Your task to perform on an android device: manage bookmarks in the chrome app Image 0: 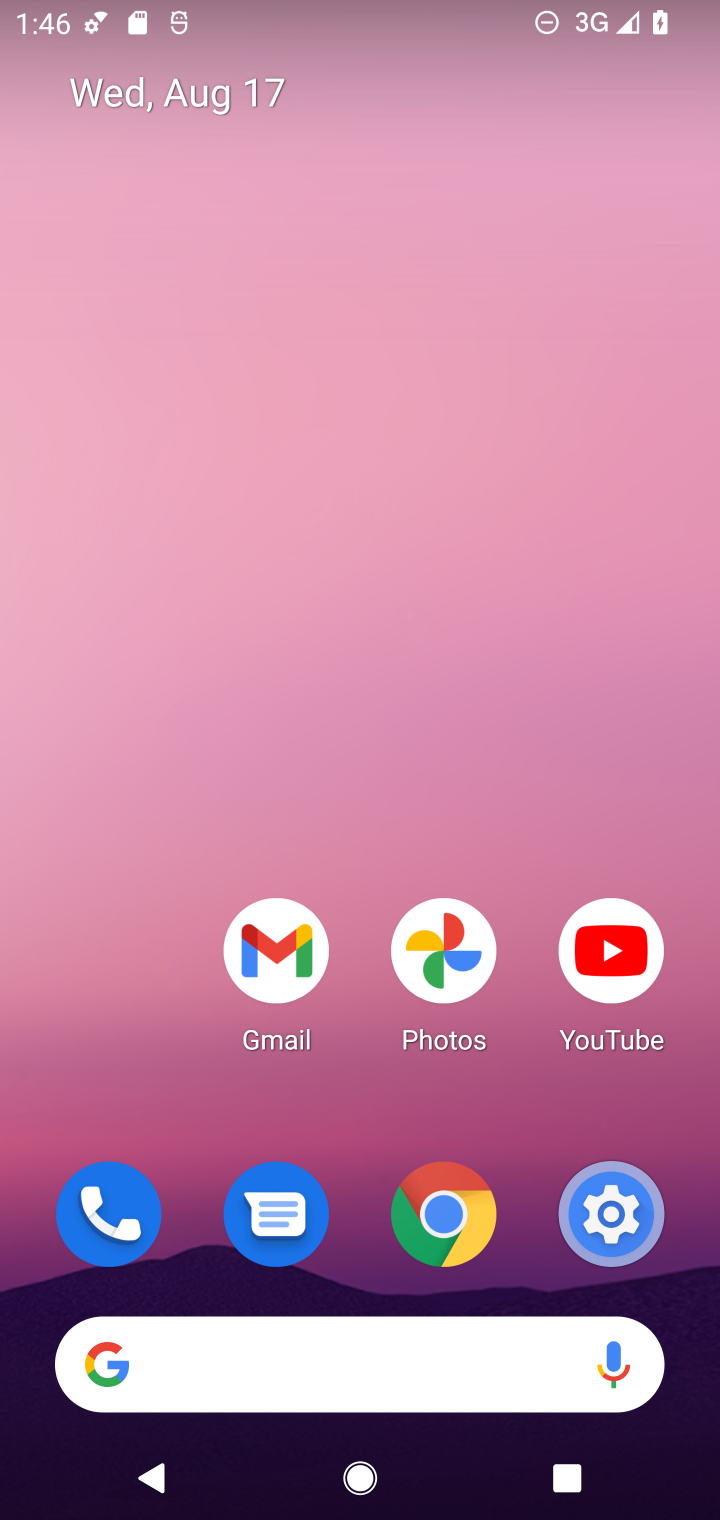
Step 0: click (441, 1221)
Your task to perform on an android device: manage bookmarks in the chrome app Image 1: 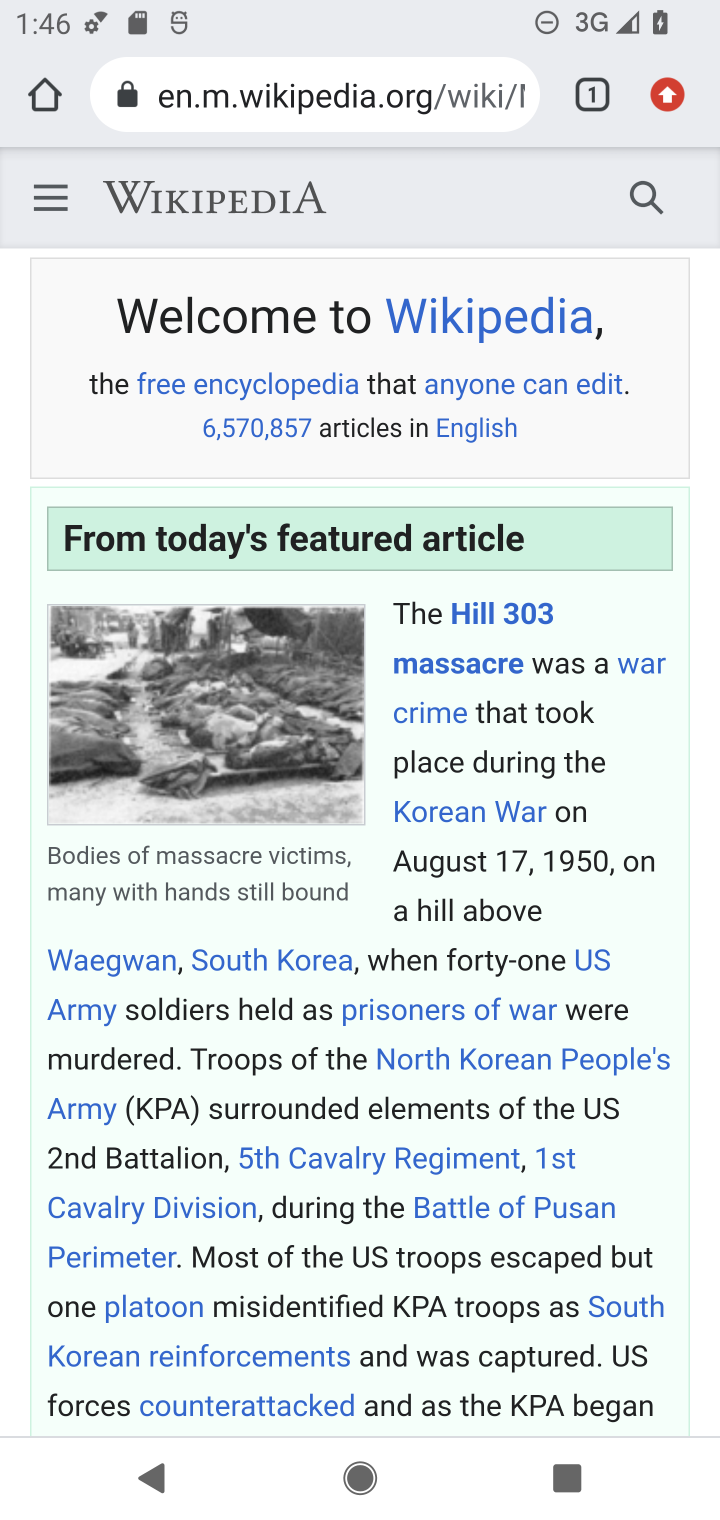
Step 1: click (669, 107)
Your task to perform on an android device: manage bookmarks in the chrome app Image 2: 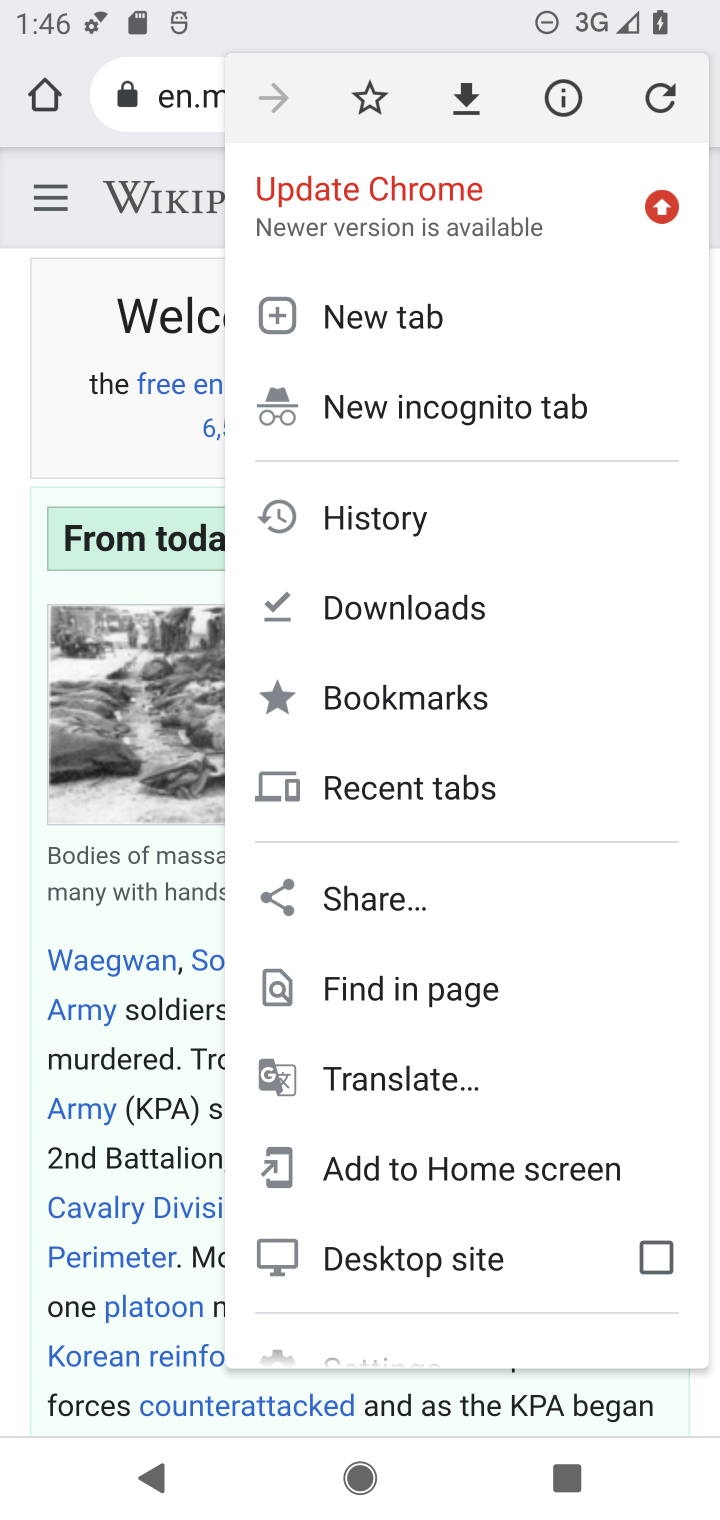
Step 2: click (412, 686)
Your task to perform on an android device: manage bookmarks in the chrome app Image 3: 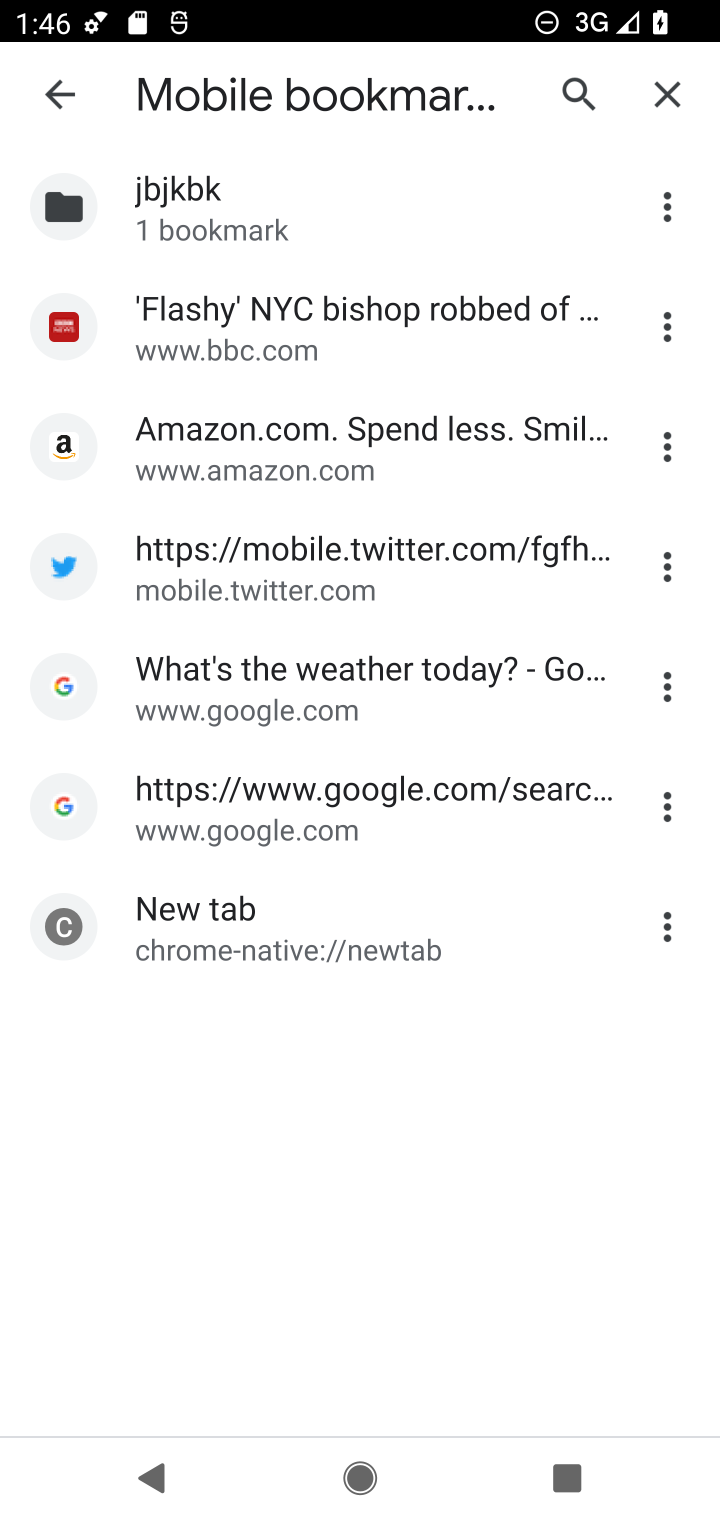
Step 3: click (668, 209)
Your task to perform on an android device: manage bookmarks in the chrome app Image 4: 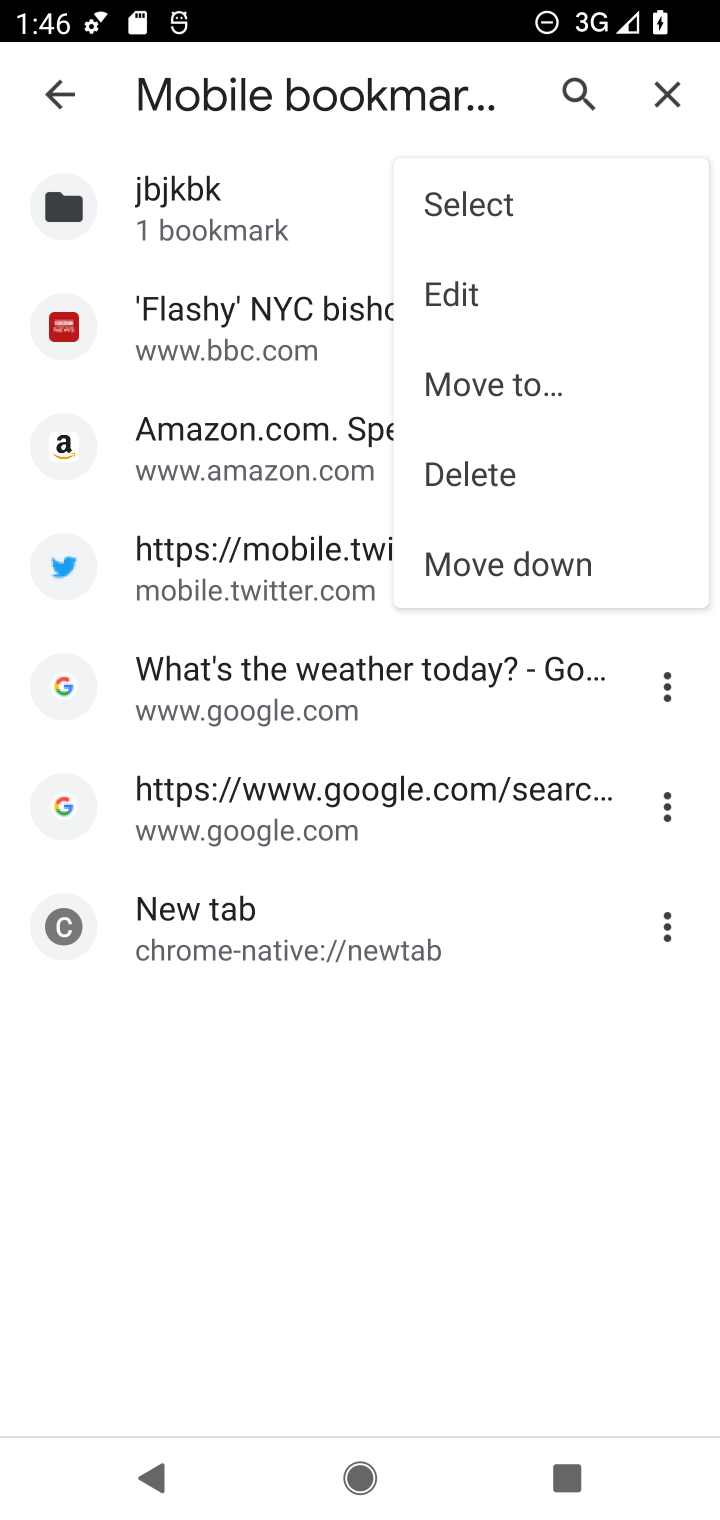
Step 4: click (465, 285)
Your task to perform on an android device: manage bookmarks in the chrome app Image 5: 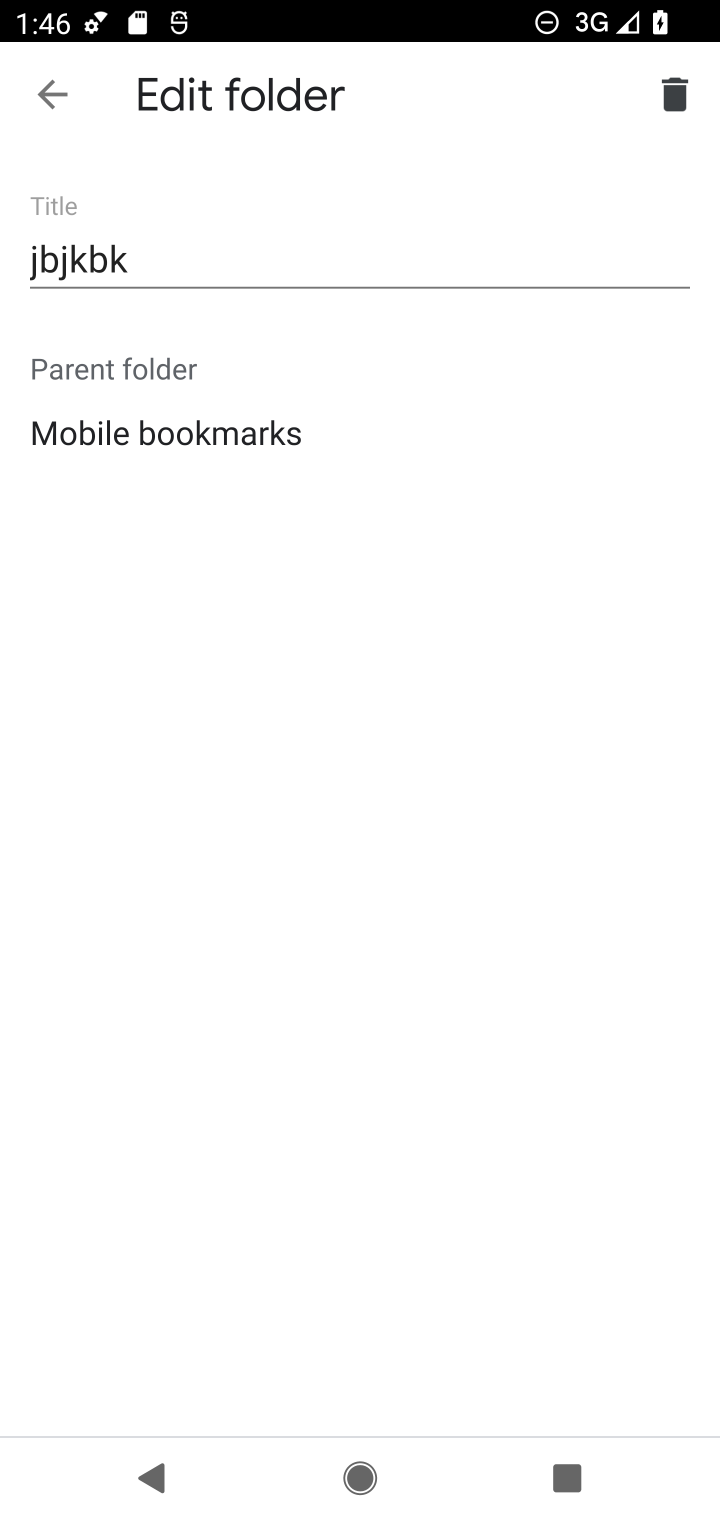
Step 5: task complete